Your task to perform on an android device: What's on my calendar tomorrow? Image 0: 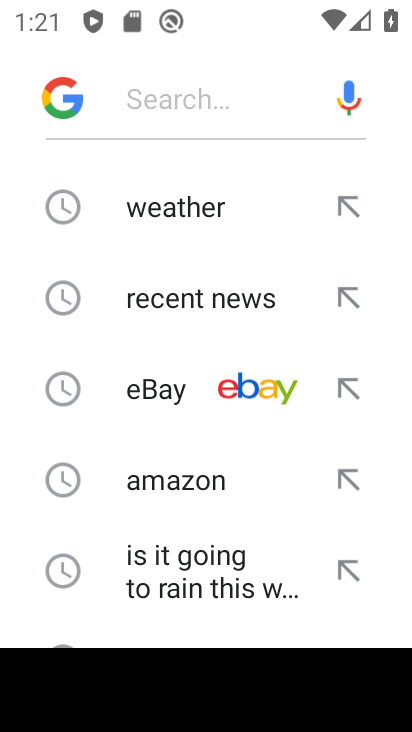
Step 0: press home button
Your task to perform on an android device: What's on my calendar tomorrow? Image 1: 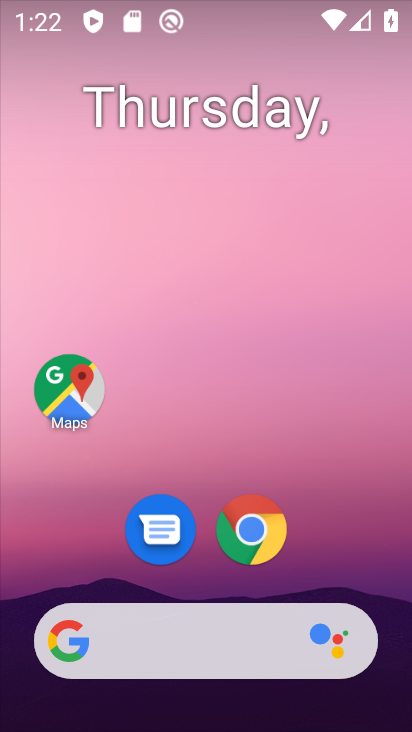
Step 1: drag from (213, 716) to (208, 127)
Your task to perform on an android device: What's on my calendar tomorrow? Image 2: 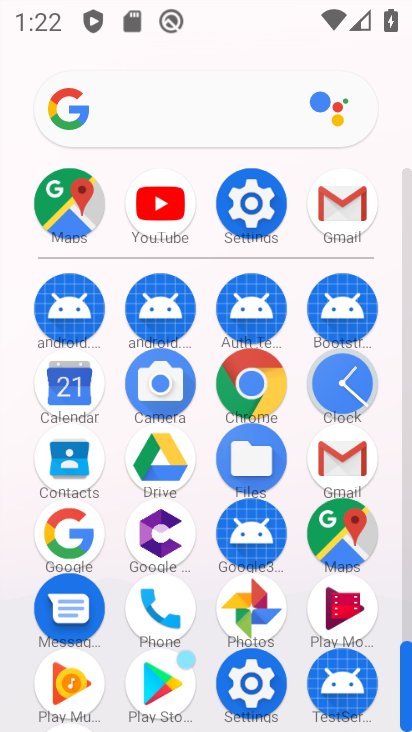
Step 2: click (68, 388)
Your task to perform on an android device: What's on my calendar tomorrow? Image 3: 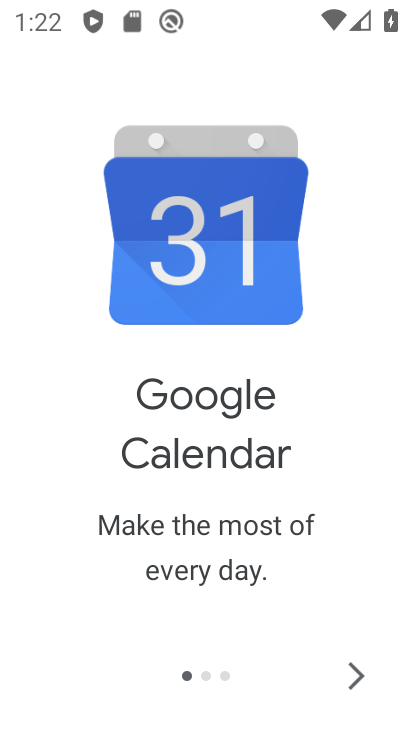
Step 3: click (353, 673)
Your task to perform on an android device: What's on my calendar tomorrow? Image 4: 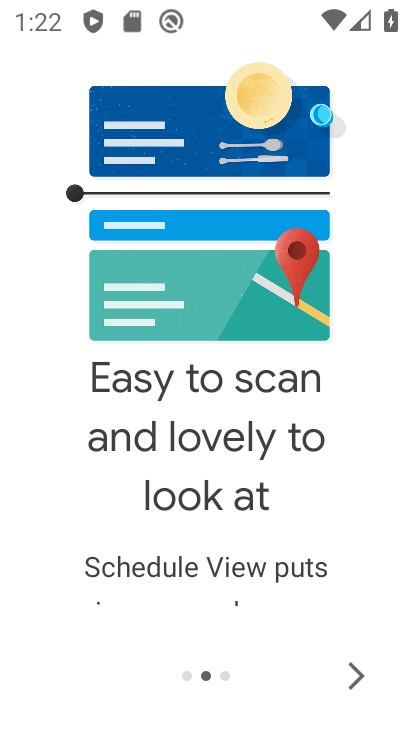
Step 4: click (353, 673)
Your task to perform on an android device: What's on my calendar tomorrow? Image 5: 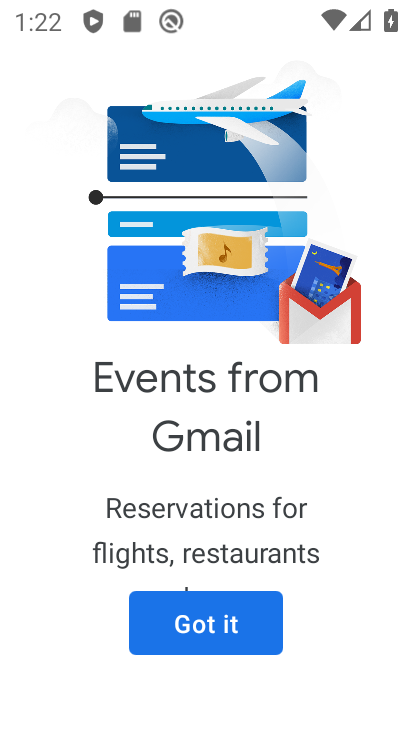
Step 5: click (230, 619)
Your task to perform on an android device: What's on my calendar tomorrow? Image 6: 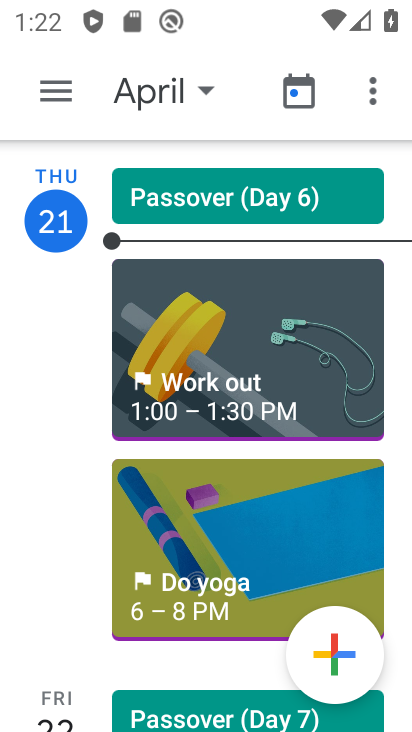
Step 6: click (146, 104)
Your task to perform on an android device: What's on my calendar tomorrow? Image 7: 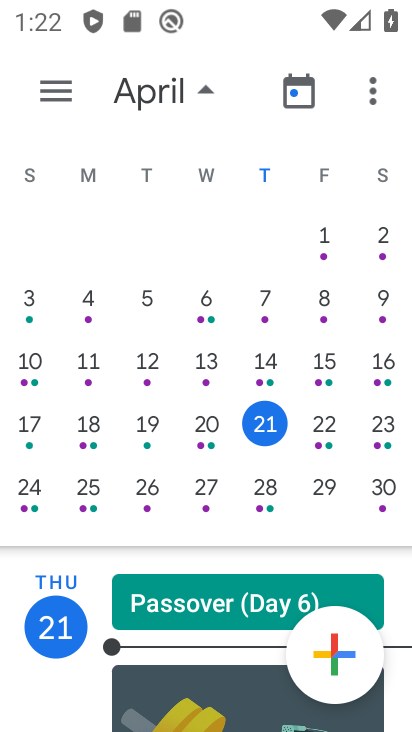
Step 7: click (266, 422)
Your task to perform on an android device: What's on my calendar tomorrow? Image 8: 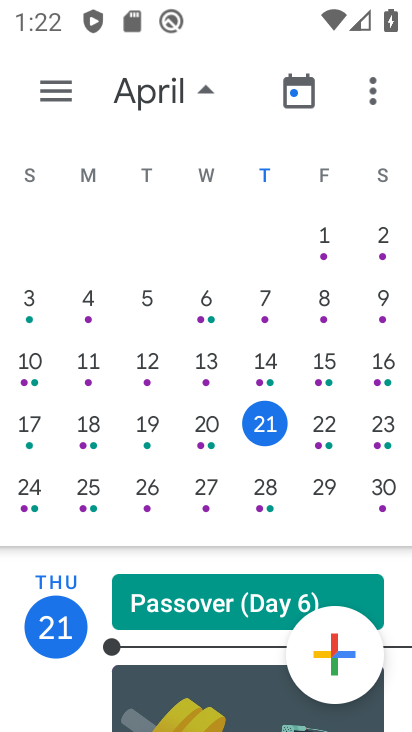
Step 8: task complete